Your task to perform on an android device: set the timer Image 0: 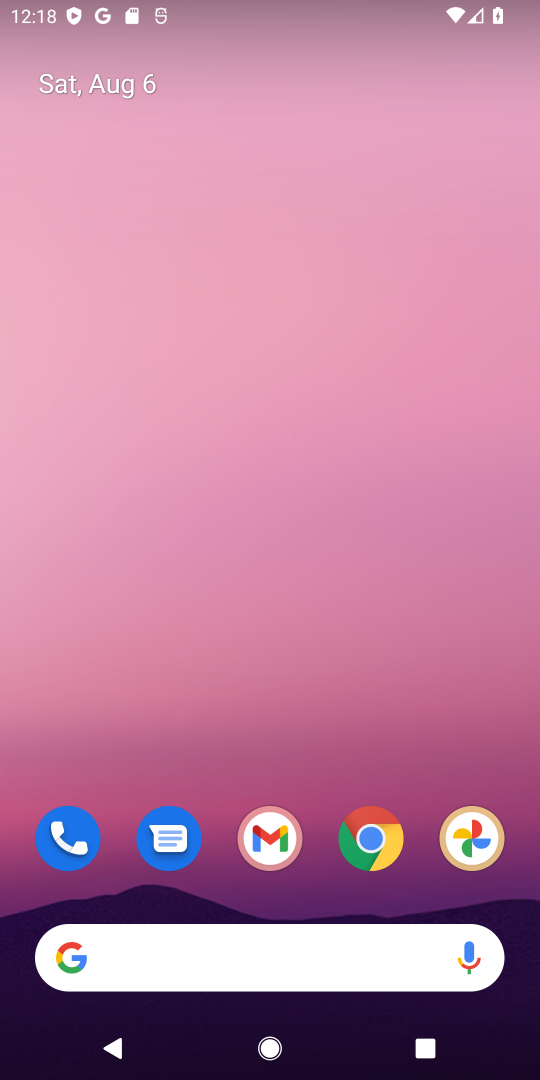
Step 0: drag from (289, 762) to (272, 24)
Your task to perform on an android device: set the timer Image 1: 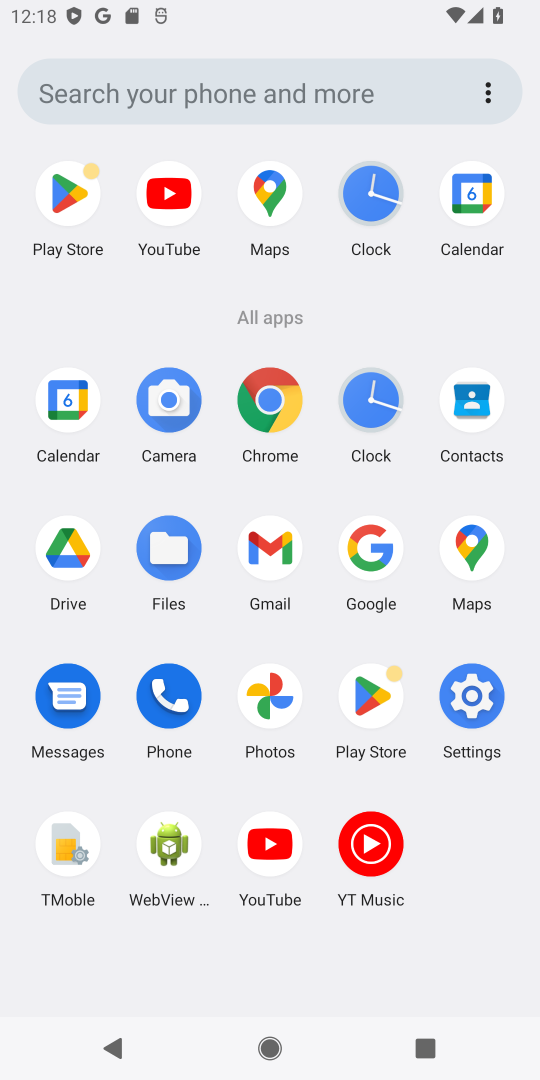
Step 1: click (384, 397)
Your task to perform on an android device: set the timer Image 2: 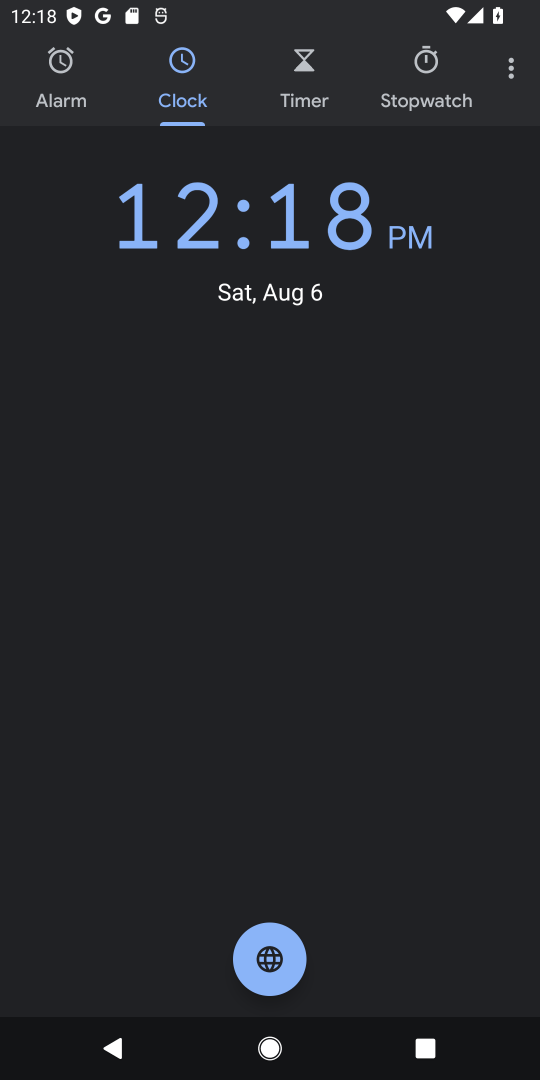
Step 2: click (312, 82)
Your task to perform on an android device: set the timer Image 3: 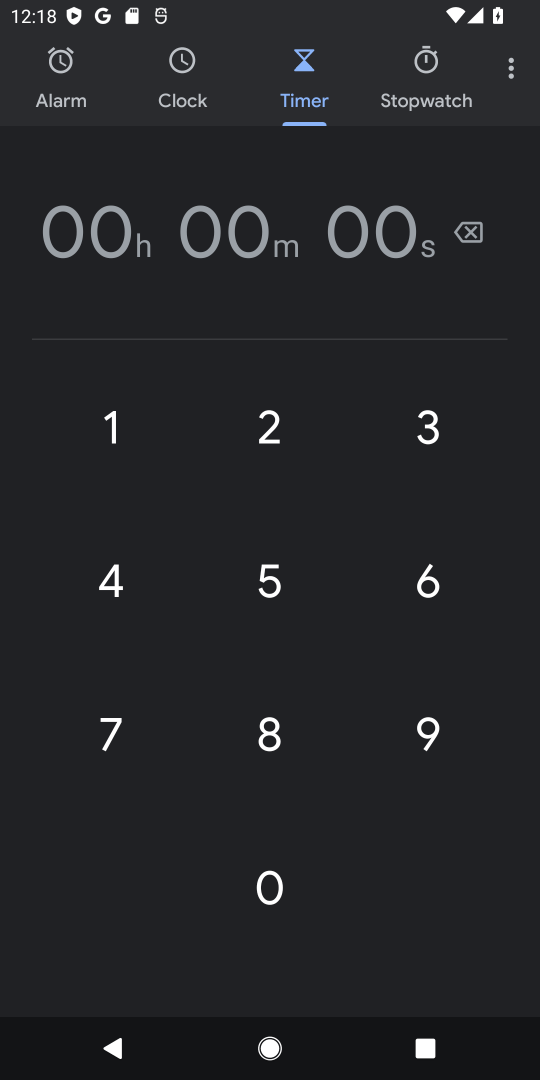
Step 3: click (340, 568)
Your task to perform on an android device: set the timer Image 4: 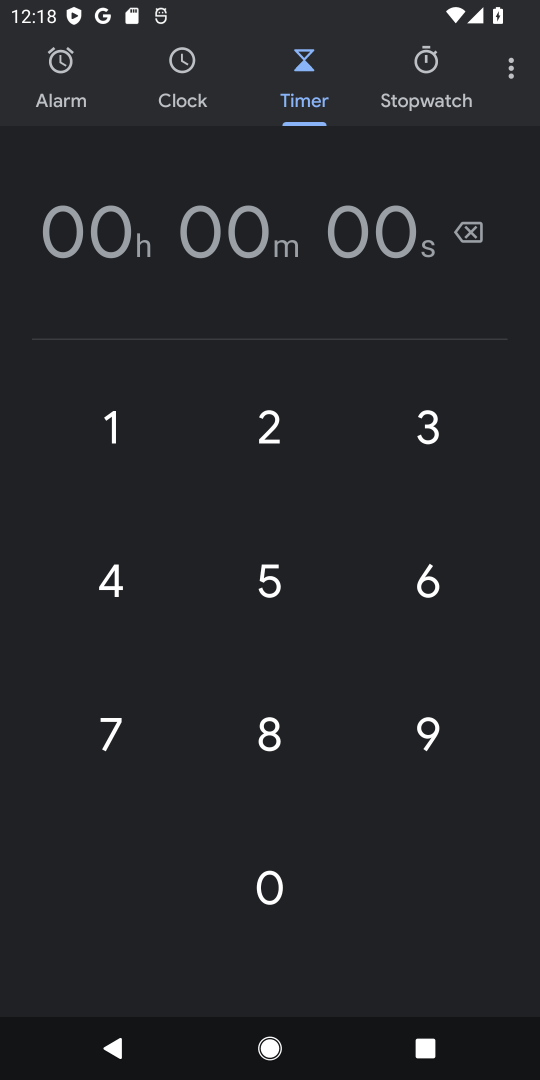
Step 4: click (340, 568)
Your task to perform on an android device: set the timer Image 5: 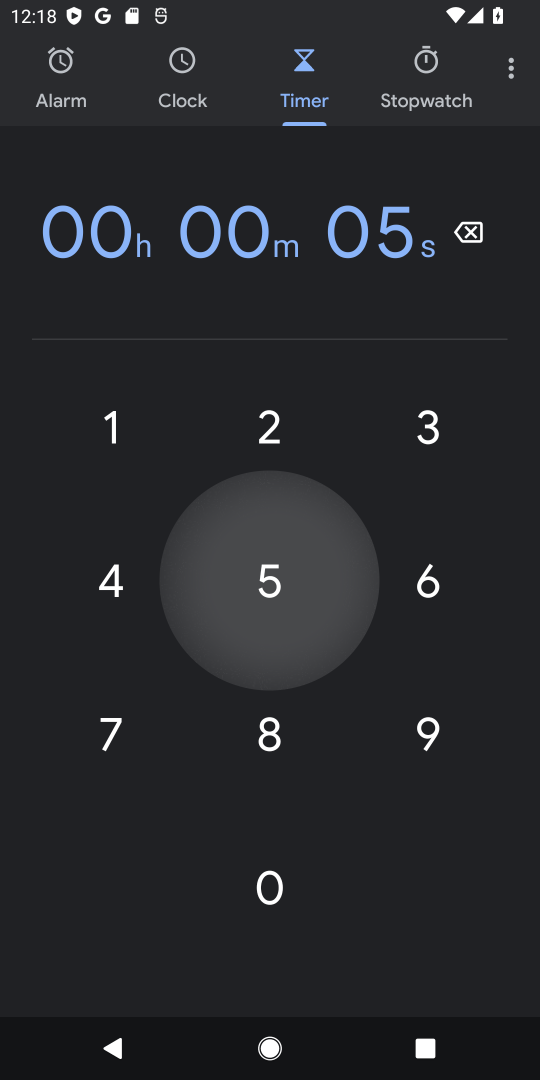
Step 5: click (340, 568)
Your task to perform on an android device: set the timer Image 6: 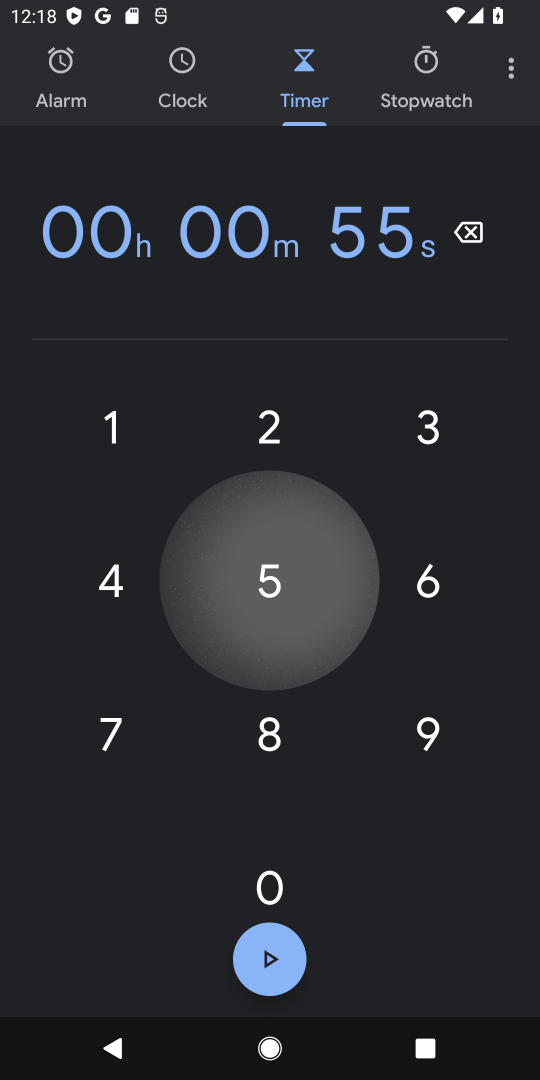
Step 6: click (340, 568)
Your task to perform on an android device: set the timer Image 7: 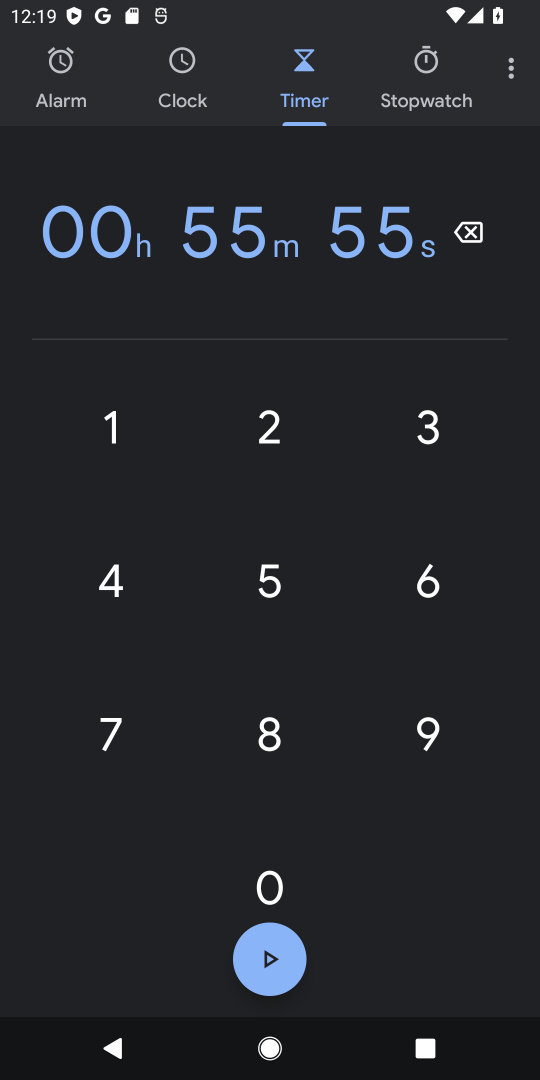
Step 7: click (340, 568)
Your task to perform on an android device: set the timer Image 8: 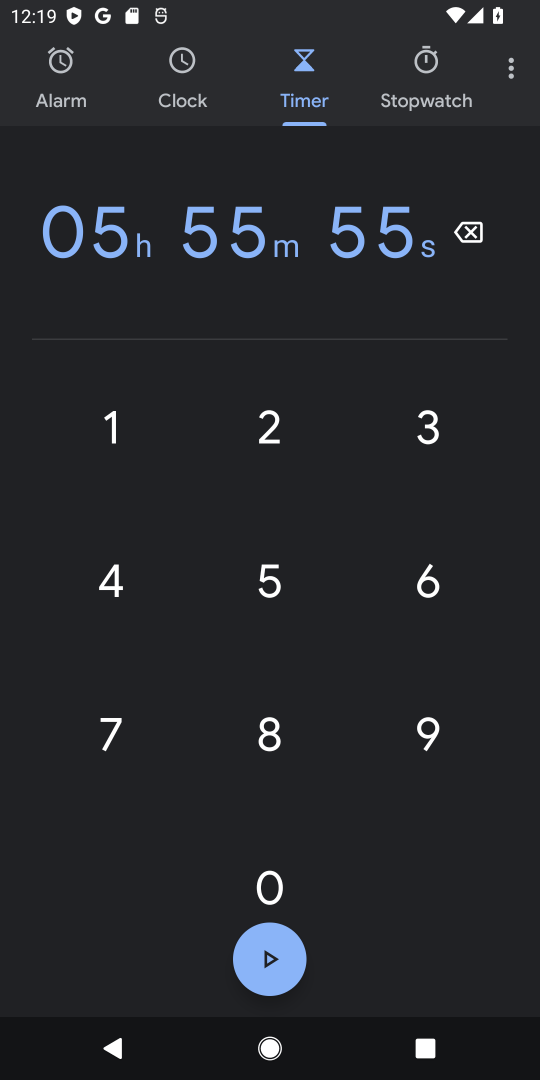
Step 8: click (279, 966)
Your task to perform on an android device: set the timer Image 9: 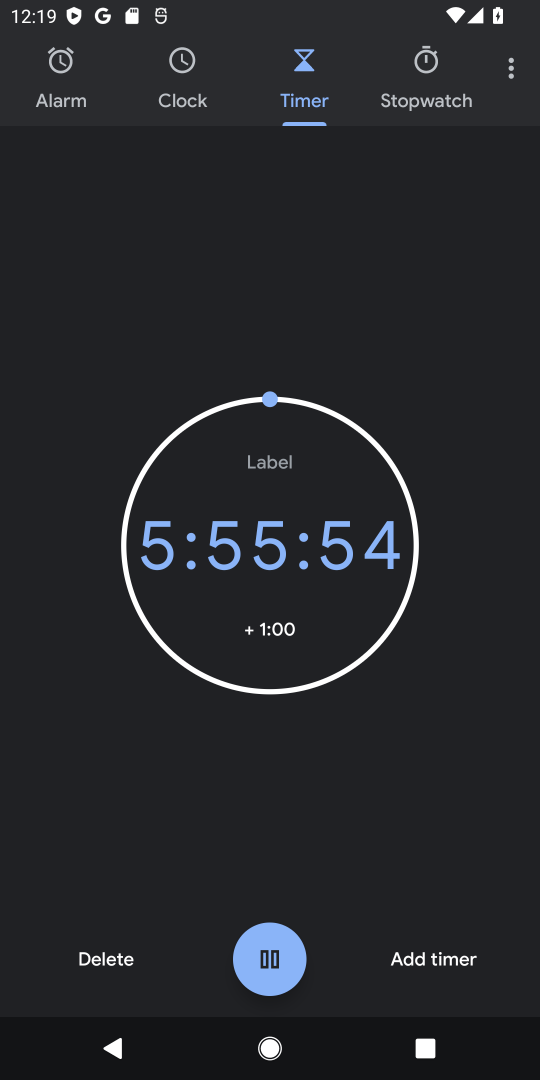
Step 9: task complete